Your task to perform on an android device: check battery use Image 0: 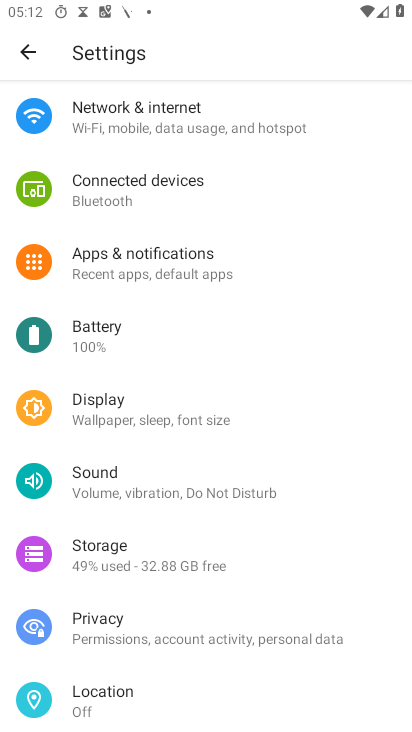
Step 0: press home button
Your task to perform on an android device: check battery use Image 1: 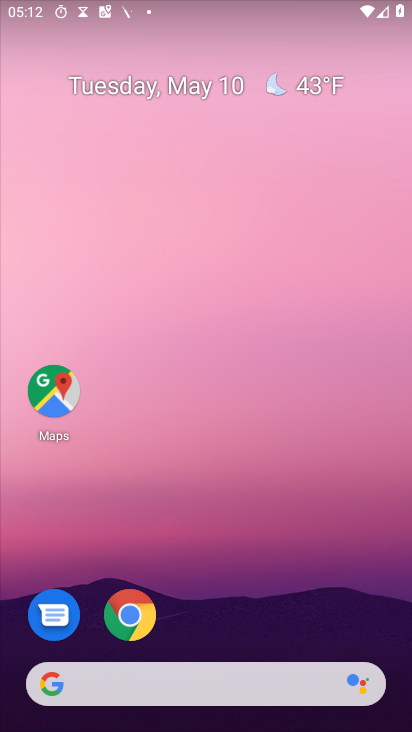
Step 1: drag from (346, 655) to (297, 53)
Your task to perform on an android device: check battery use Image 2: 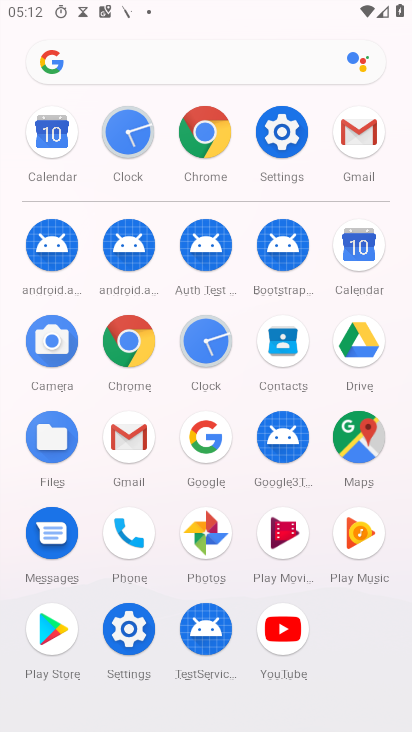
Step 2: click (303, 141)
Your task to perform on an android device: check battery use Image 3: 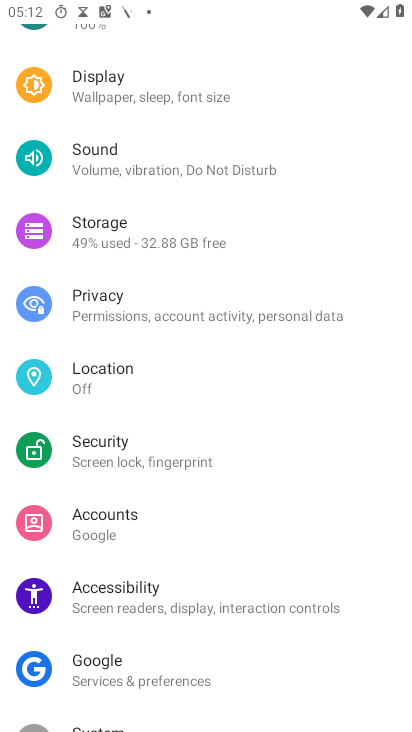
Step 3: drag from (190, 294) to (235, 623)
Your task to perform on an android device: check battery use Image 4: 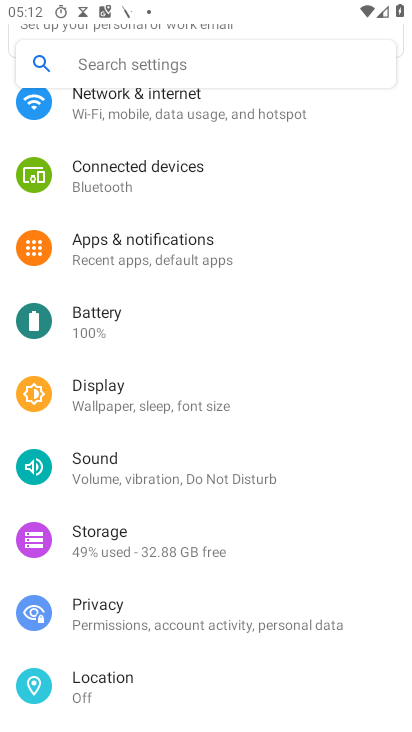
Step 4: click (163, 341)
Your task to perform on an android device: check battery use Image 5: 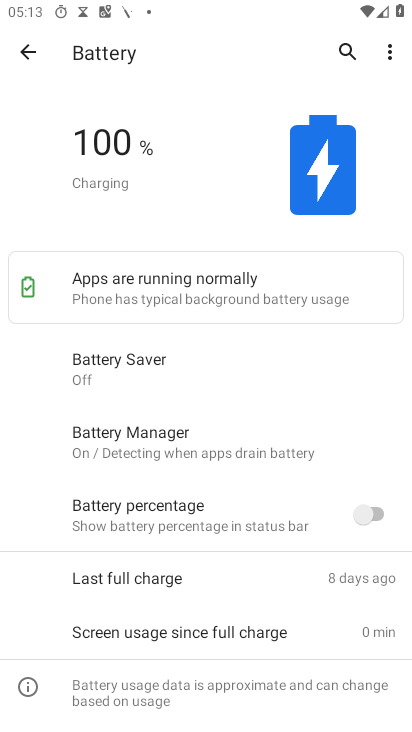
Step 5: task complete